Your task to perform on an android device: toggle location history Image 0: 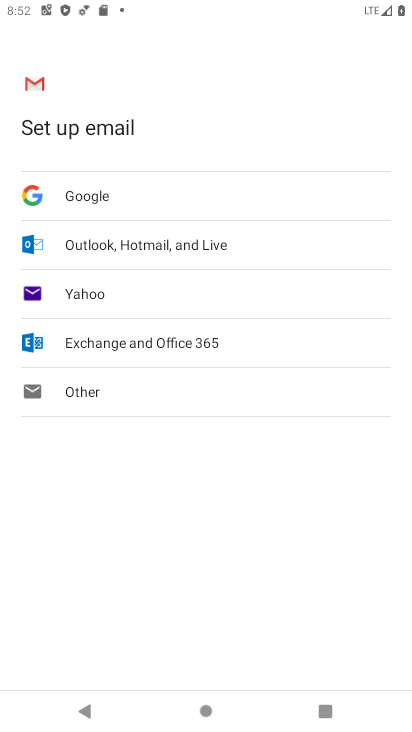
Step 0: press home button
Your task to perform on an android device: toggle location history Image 1: 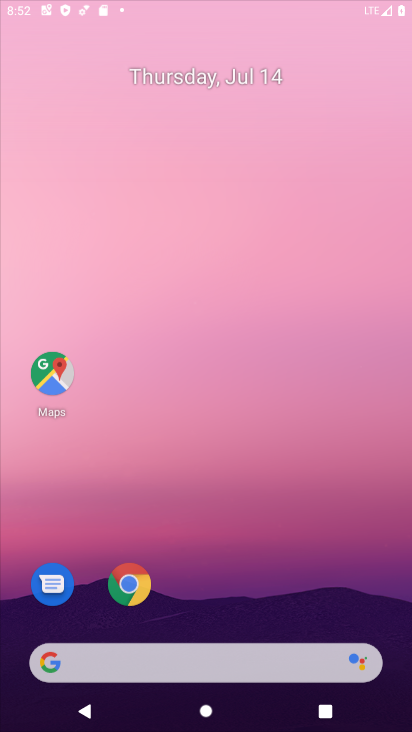
Step 1: drag from (387, 701) to (264, 30)
Your task to perform on an android device: toggle location history Image 2: 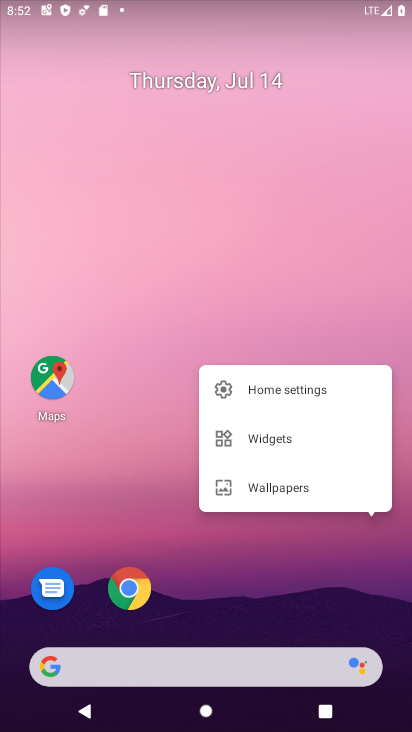
Step 2: click (367, 288)
Your task to perform on an android device: toggle location history Image 3: 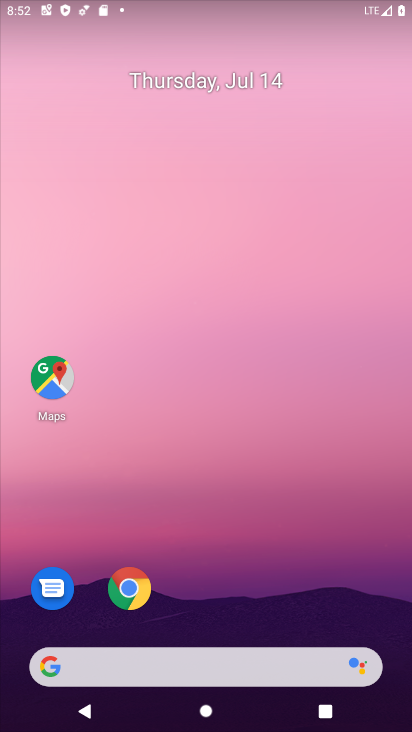
Step 3: drag from (404, 648) to (244, 13)
Your task to perform on an android device: toggle location history Image 4: 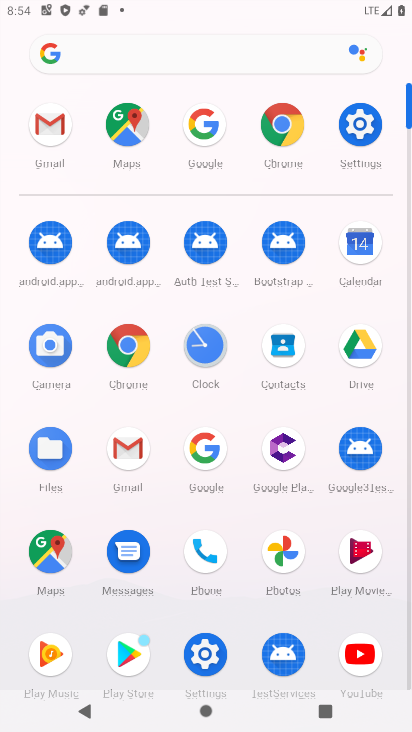
Step 4: click (204, 649)
Your task to perform on an android device: toggle location history Image 5: 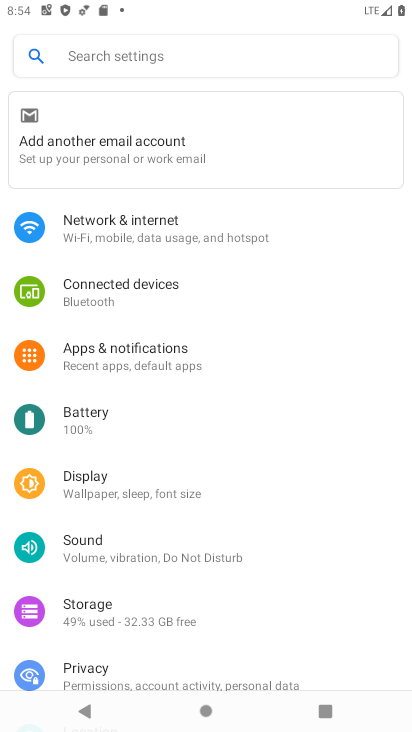
Step 5: drag from (137, 655) to (174, 170)
Your task to perform on an android device: toggle location history Image 6: 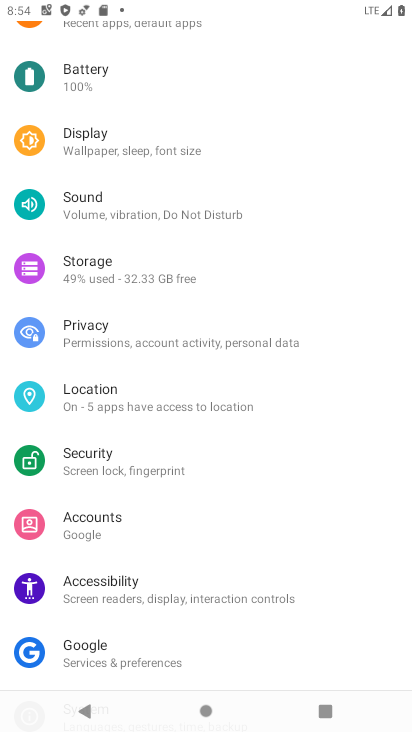
Step 6: click (107, 377)
Your task to perform on an android device: toggle location history Image 7: 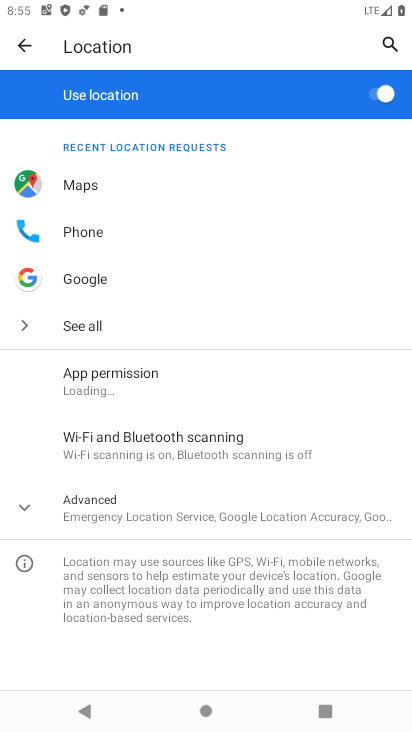
Step 7: click (157, 519)
Your task to perform on an android device: toggle location history Image 8: 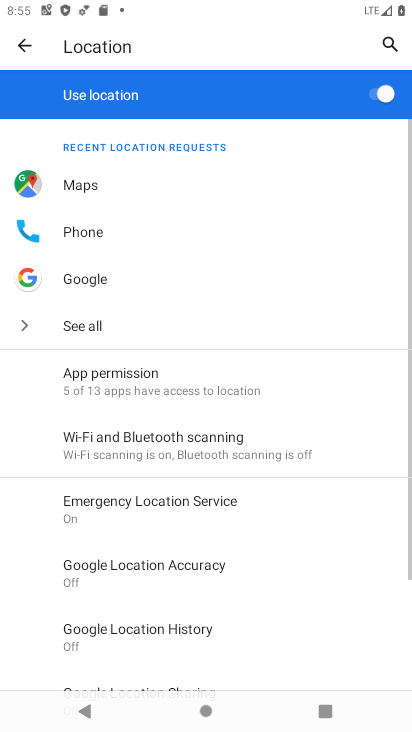
Step 8: click (134, 646)
Your task to perform on an android device: toggle location history Image 9: 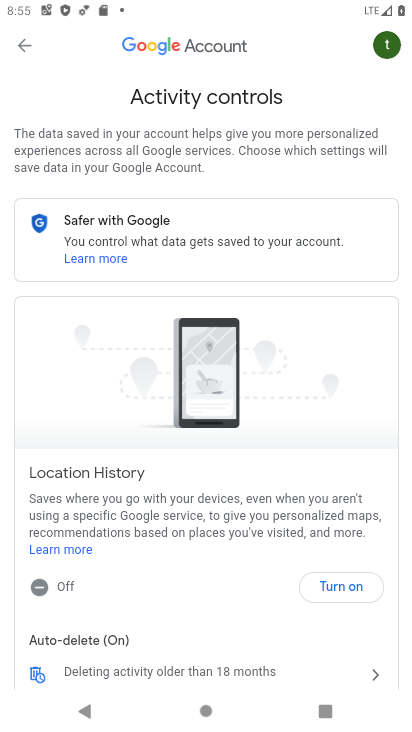
Step 9: click (333, 590)
Your task to perform on an android device: toggle location history Image 10: 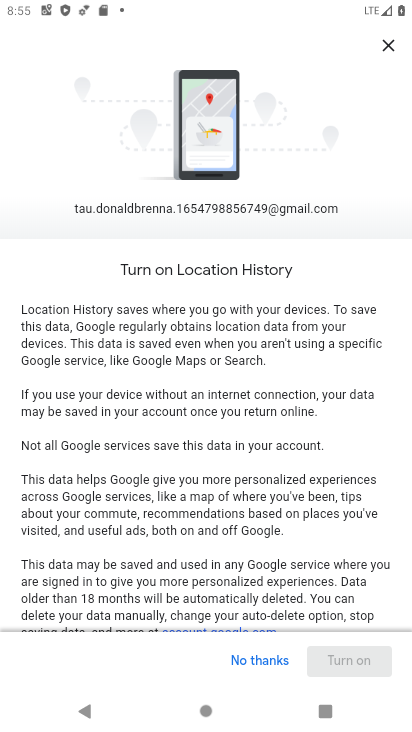
Step 10: task complete